Your task to perform on an android device: turn off improve location accuracy Image 0: 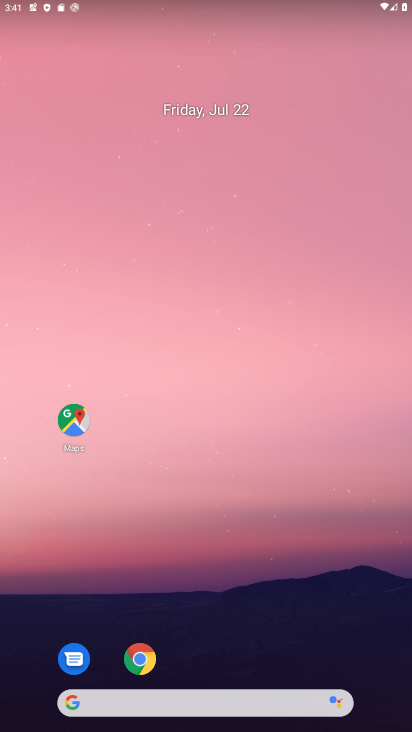
Step 0: drag from (203, 631) to (248, 163)
Your task to perform on an android device: turn off improve location accuracy Image 1: 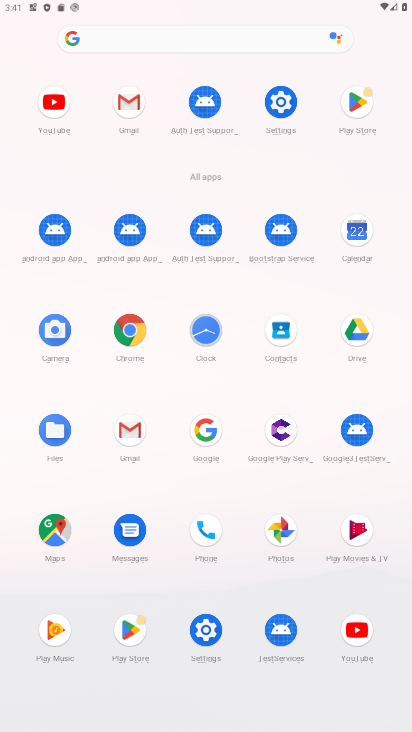
Step 1: click (269, 110)
Your task to perform on an android device: turn off improve location accuracy Image 2: 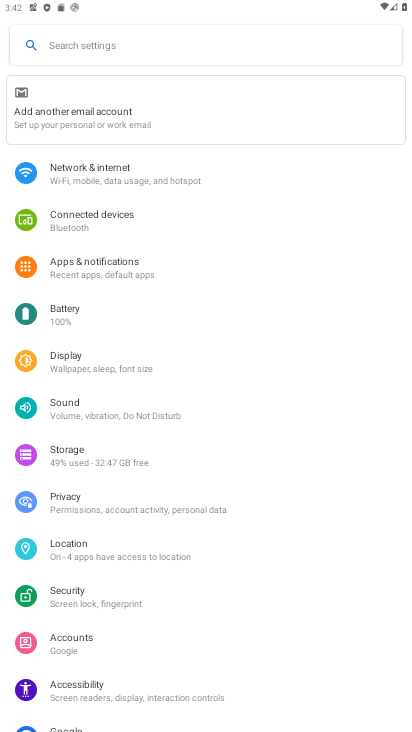
Step 2: click (96, 555)
Your task to perform on an android device: turn off improve location accuracy Image 3: 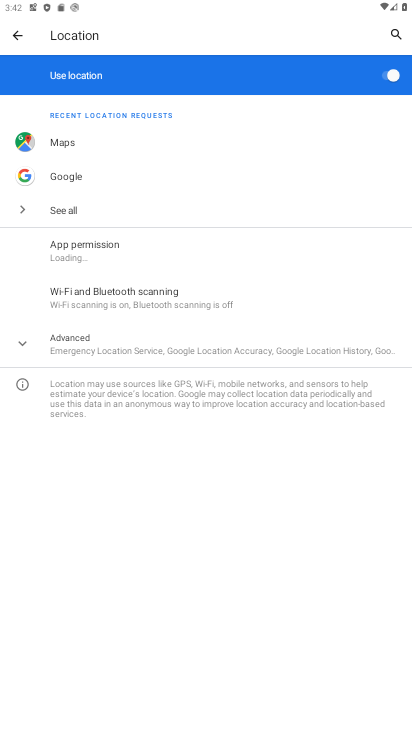
Step 3: click (398, 78)
Your task to perform on an android device: turn off improve location accuracy Image 4: 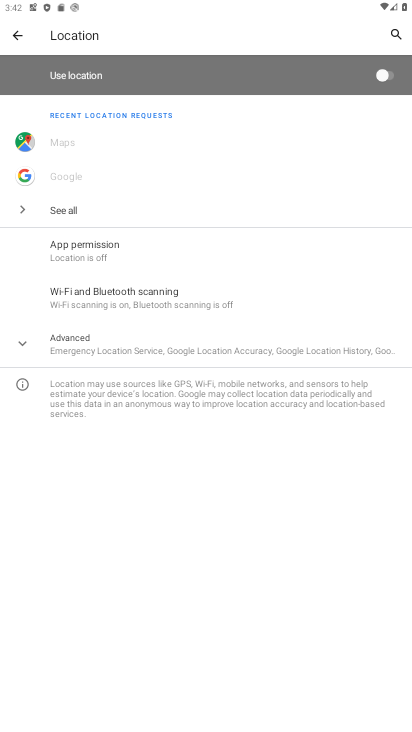
Step 4: task complete